Your task to perform on an android device: toggle javascript in the chrome app Image 0: 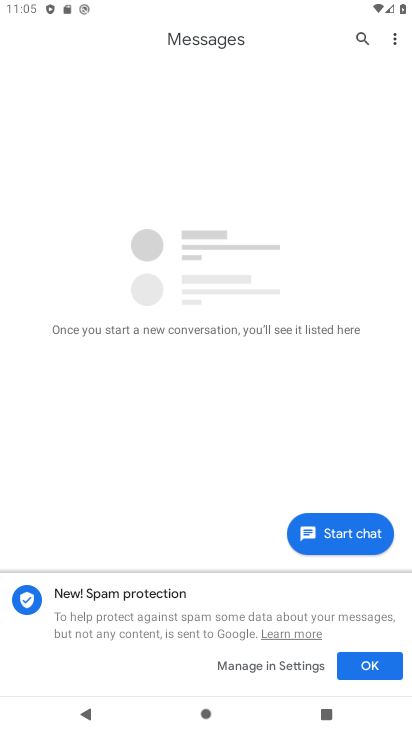
Step 0: press home button
Your task to perform on an android device: toggle javascript in the chrome app Image 1: 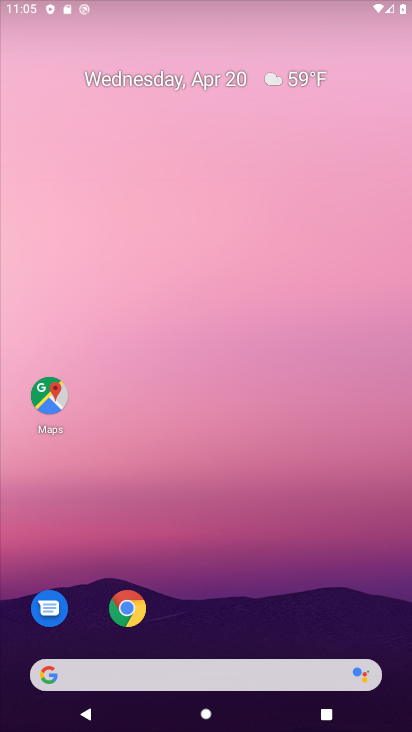
Step 1: drag from (233, 538) to (206, 144)
Your task to perform on an android device: toggle javascript in the chrome app Image 2: 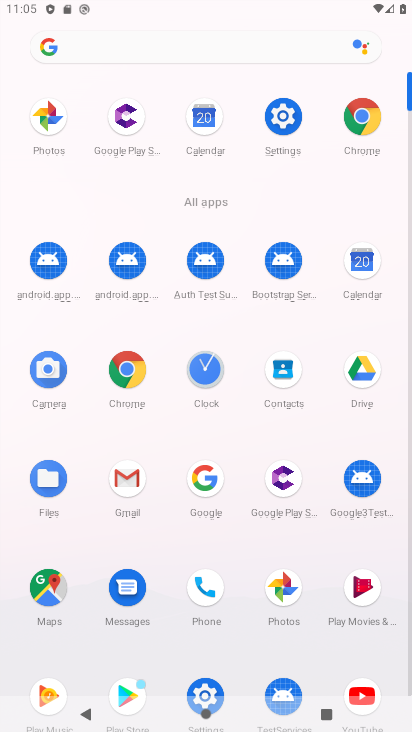
Step 2: click (362, 116)
Your task to perform on an android device: toggle javascript in the chrome app Image 3: 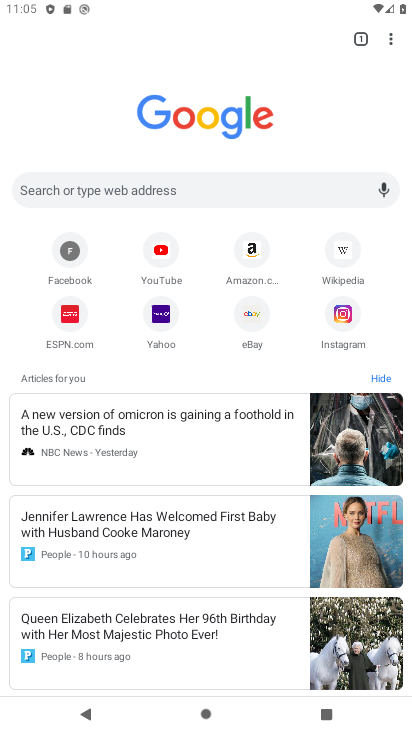
Step 3: click (387, 35)
Your task to perform on an android device: toggle javascript in the chrome app Image 4: 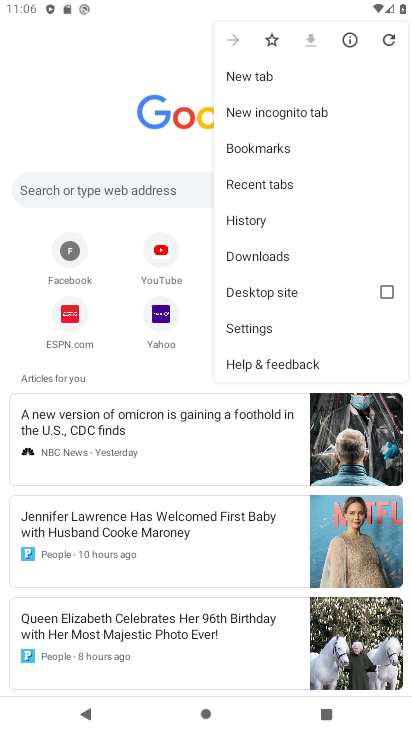
Step 4: click (267, 327)
Your task to perform on an android device: toggle javascript in the chrome app Image 5: 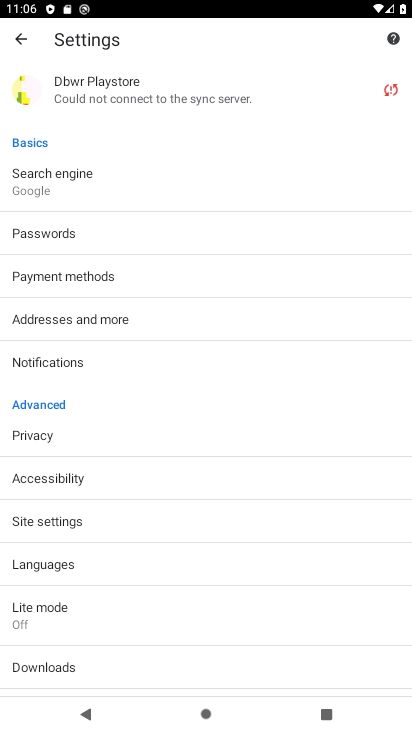
Step 5: drag from (186, 589) to (134, 163)
Your task to perform on an android device: toggle javascript in the chrome app Image 6: 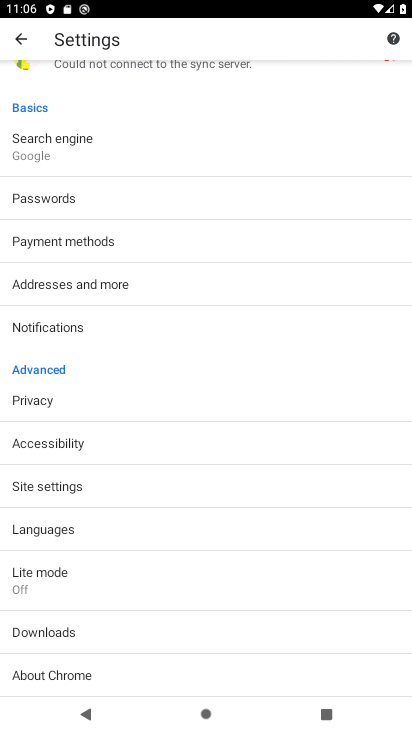
Step 6: click (59, 483)
Your task to perform on an android device: toggle javascript in the chrome app Image 7: 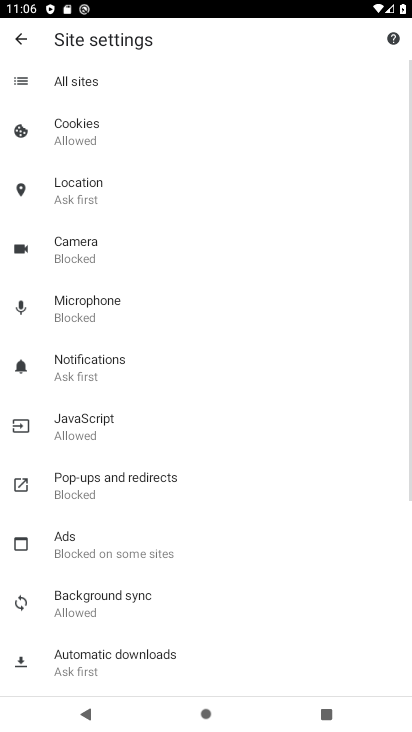
Step 7: click (120, 426)
Your task to perform on an android device: toggle javascript in the chrome app Image 8: 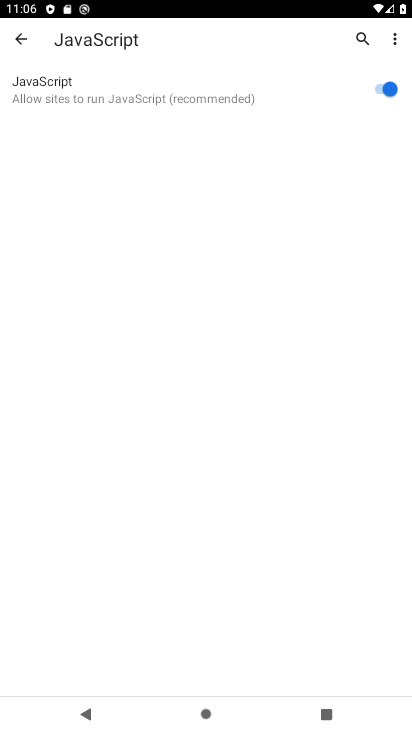
Step 8: click (373, 99)
Your task to perform on an android device: toggle javascript in the chrome app Image 9: 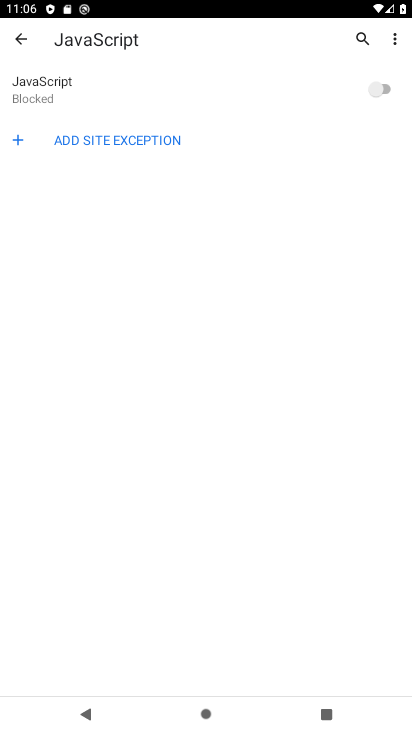
Step 9: task complete